Your task to perform on an android device: Open eBay Image 0: 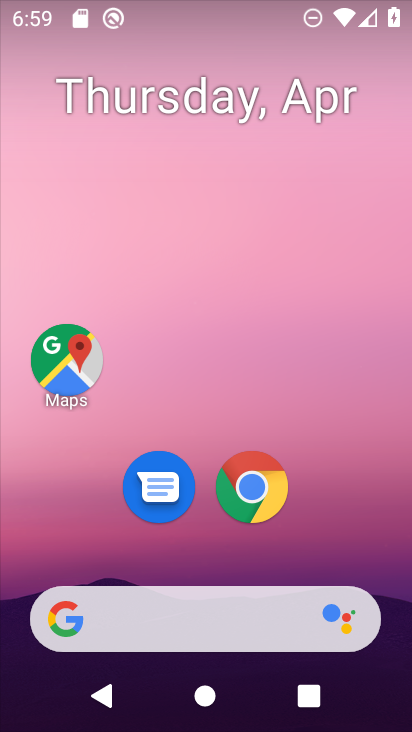
Step 0: drag from (357, 511) to (386, 59)
Your task to perform on an android device: Open eBay Image 1: 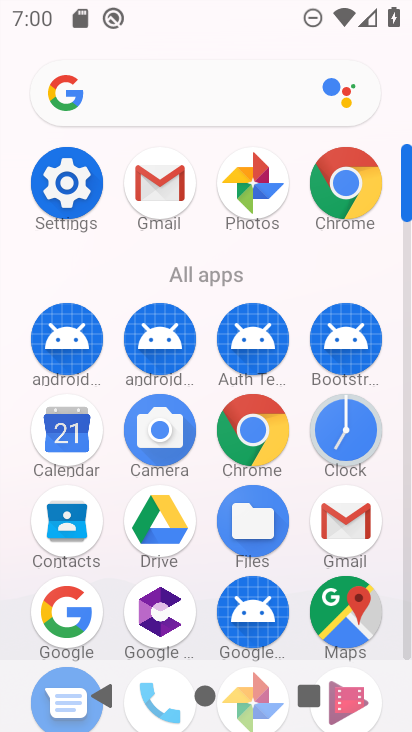
Step 1: click (255, 442)
Your task to perform on an android device: Open eBay Image 2: 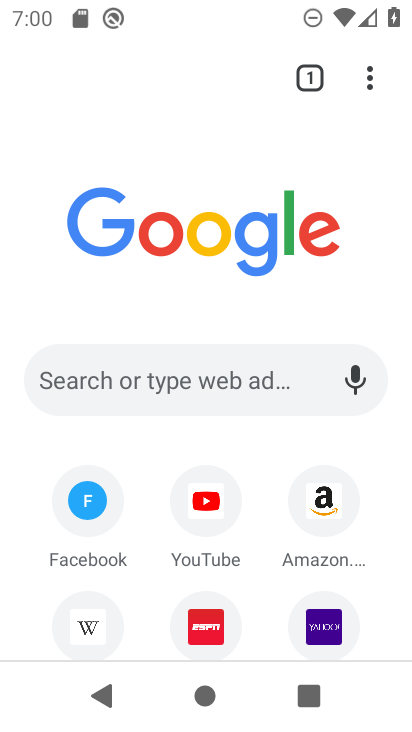
Step 2: click (200, 370)
Your task to perform on an android device: Open eBay Image 3: 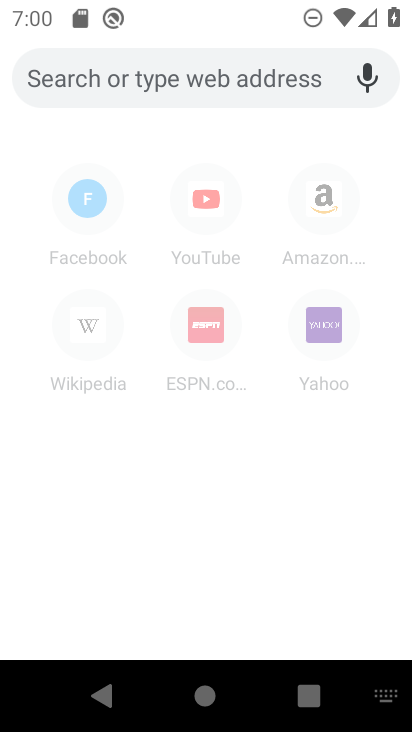
Step 3: type "eBay"
Your task to perform on an android device: Open eBay Image 4: 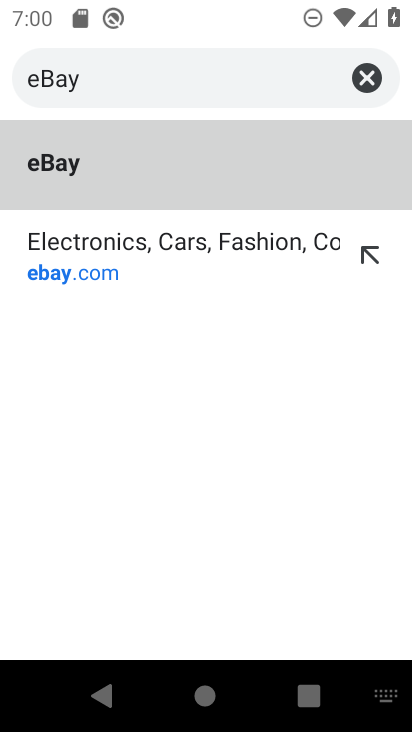
Step 4: click (57, 163)
Your task to perform on an android device: Open eBay Image 5: 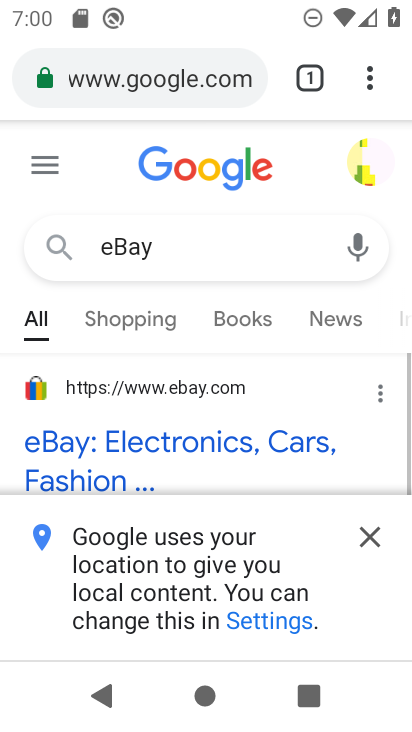
Step 5: click (368, 531)
Your task to perform on an android device: Open eBay Image 6: 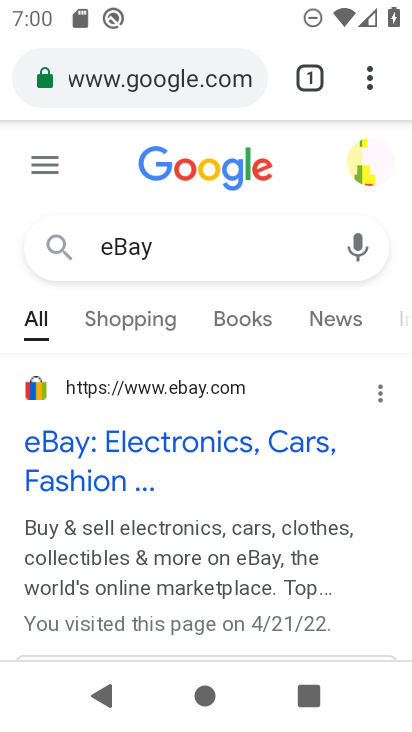
Step 6: drag from (340, 508) to (388, 270)
Your task to perform on an android device: Open eBay Image 7: 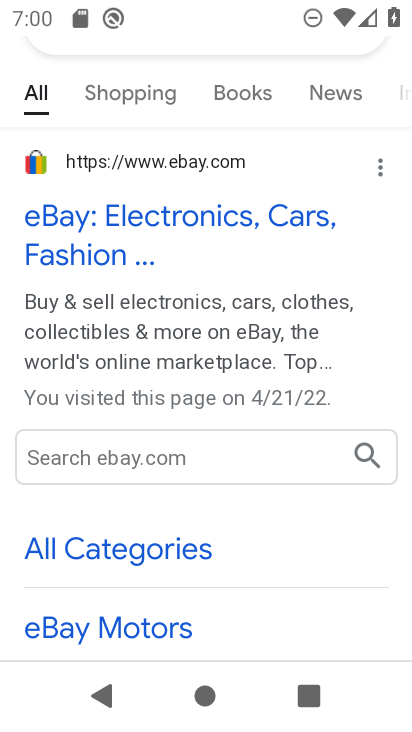
Step 7: click (118, 219)
Your task to perform on an android device: Open eBay Image 8: 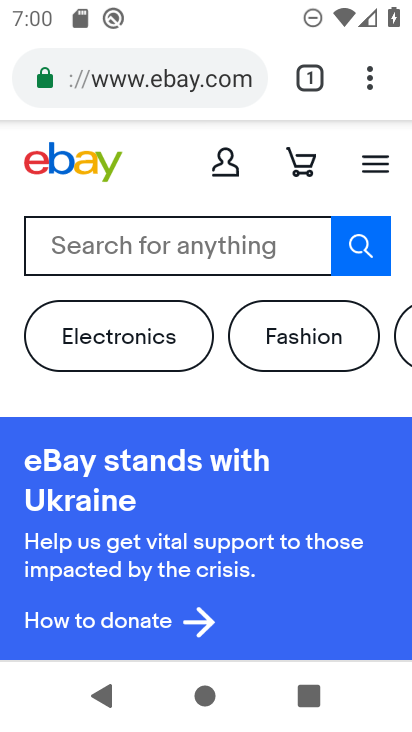
Step 8: task complete